Your task to perform on an android device: open wifi settings Image 0: 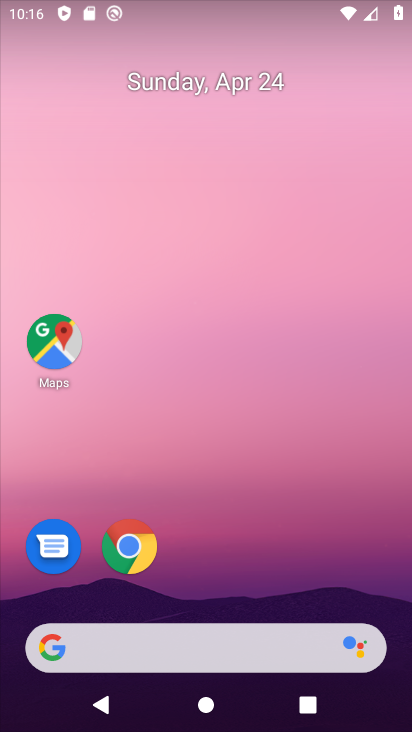
Step 0: click (152, 163)
Your task to perform on an android device: open wifi settings Image 1: 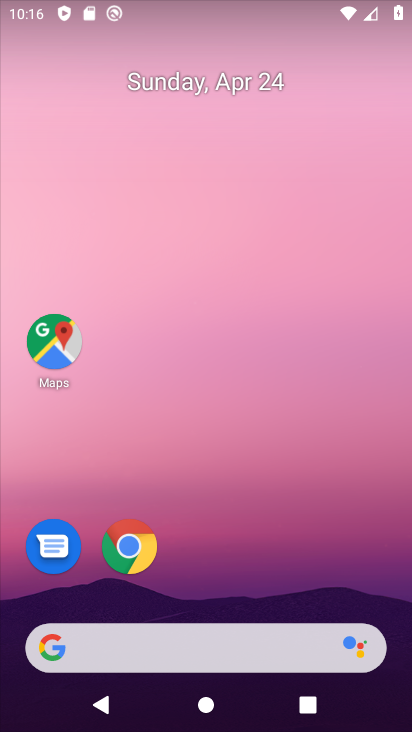
Step 1: drag from (229, 611) to (126, 54)
Your task to perform on an android device: open wifi settings Image 2: 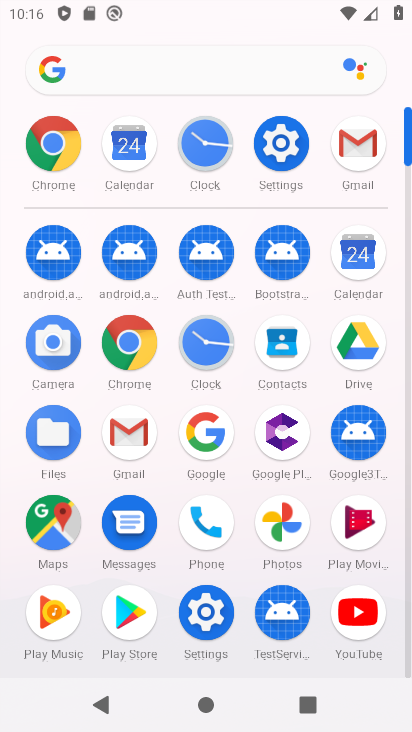
Step 2: click (216, 596)
Your task to perform on an android device: open wifi settings Image 3: 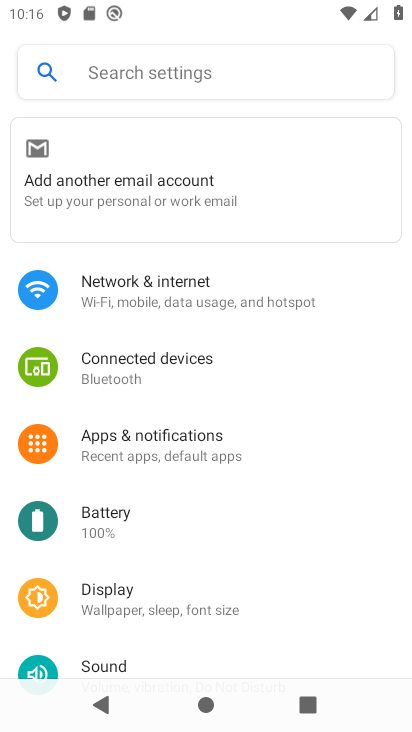
Step 3: drag from (215, 594) to (165, 518)
Your task to perform on an android device: open wifi settings Image 4: 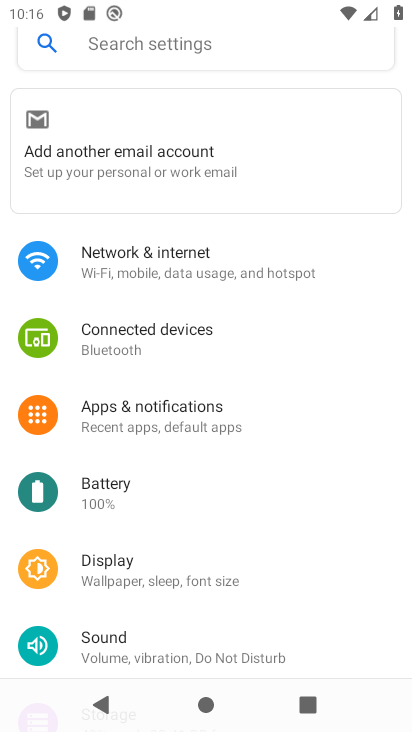
Step 4: click (134, 269)
Your task to perform on an android device: open wifi settings Image 5: 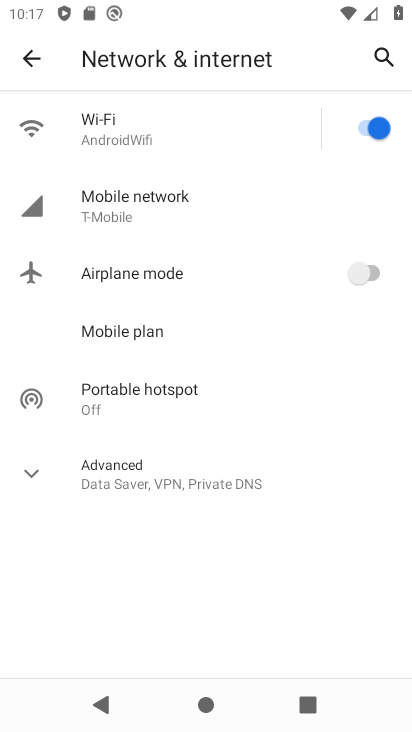
Step 5: click (104, 122)
Your task to perform on an android device: open wifi settings Image 6: 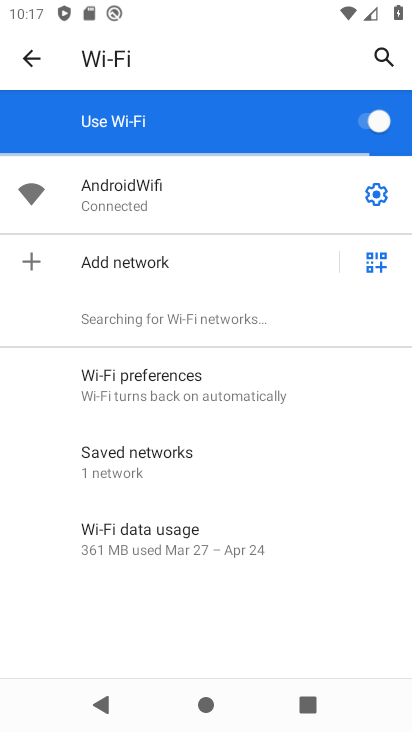
Step 6: click (378, 191)
Your task to perform on an android device: open wifi settings Image 7: 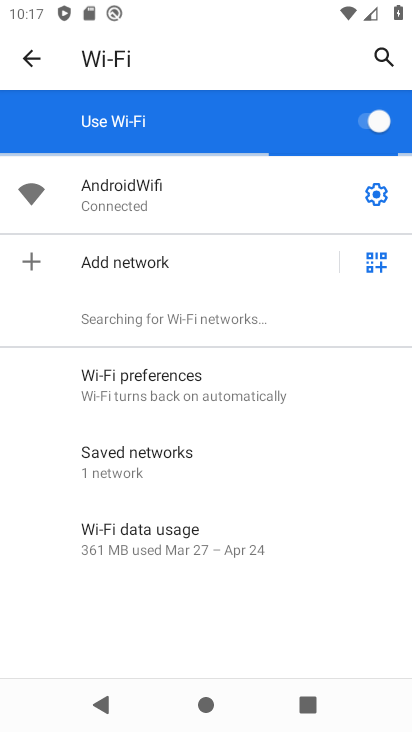
Step 7: click (373, 198)
Your task to perform on an android device: open wifi settings Image 8: 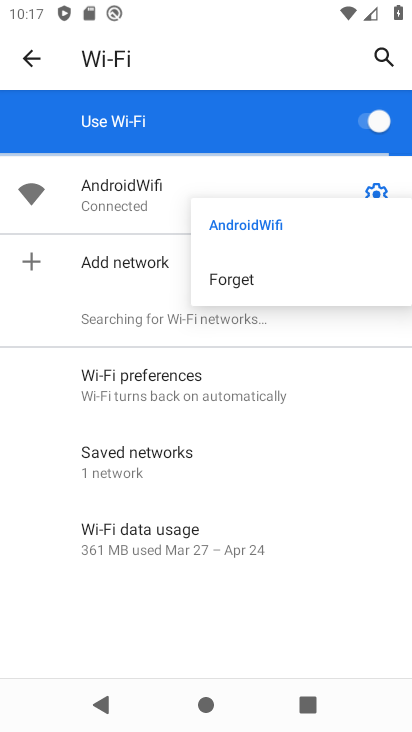
Step 8: click (338, 614)
Your task to perform on an android device: open wifi settings Image 9: 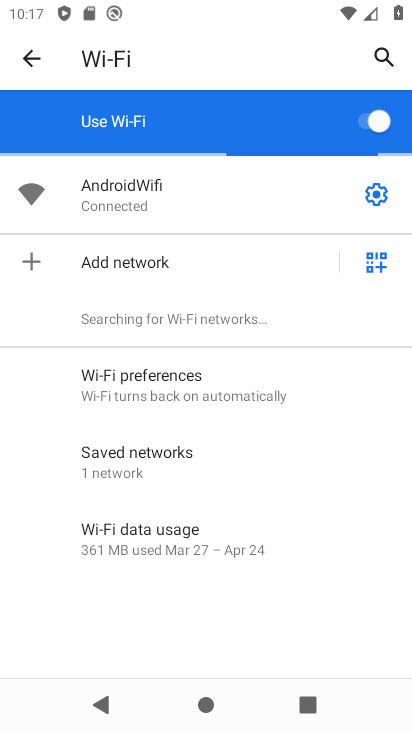
Step 9: click (382, 195)
Your task to perform on an android device: open wifi settings Image 10: 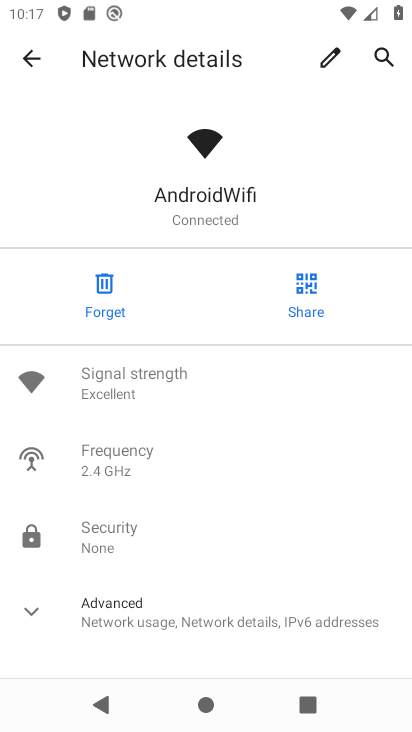
Step 10: task complete